Your task to perform on an android device: turn on sleep mode Image 0: 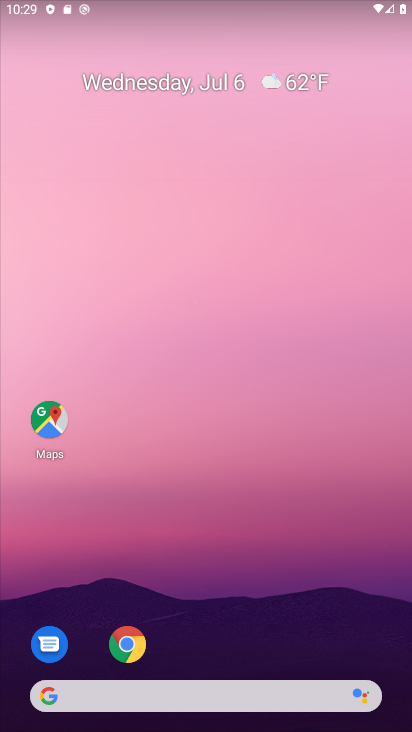
Step 0: press home button
Your task to perform on an android device: turn on sleep mode Image 1: 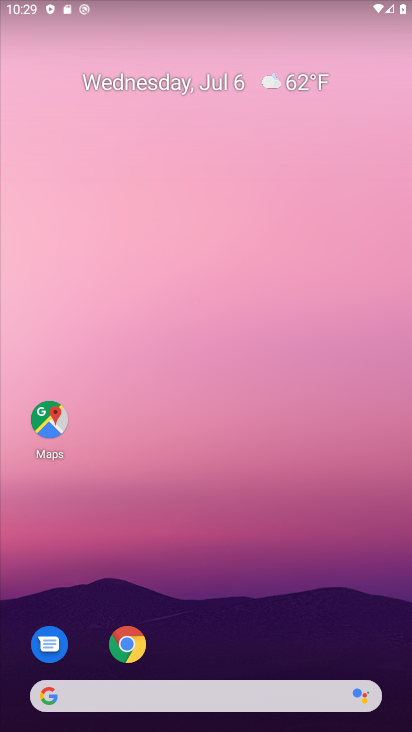
Step 1: press home button
Your task to perform on an android device: turn on sleep mode Image 2: 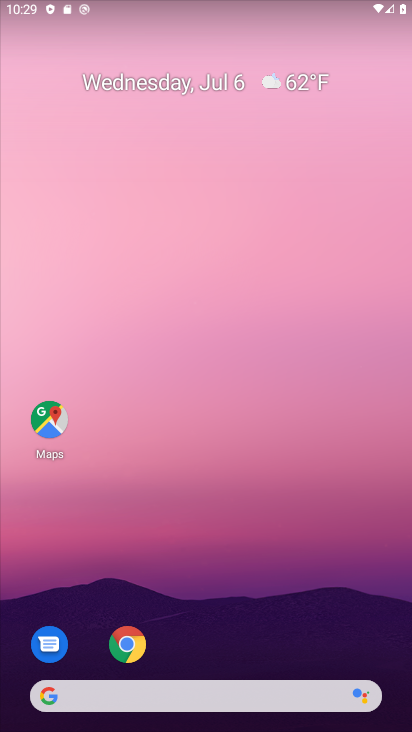
Step 2: drag from (213, 655) to (179, 157)
Your task to perform on an android device: turn on sleep mode Image 3: 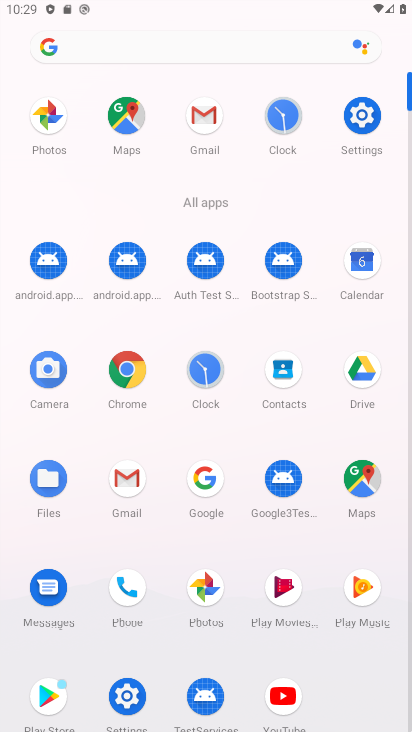
Step 3: click (364, 124)
Your task to perform on an android device: turn on sleep mode Image 4: 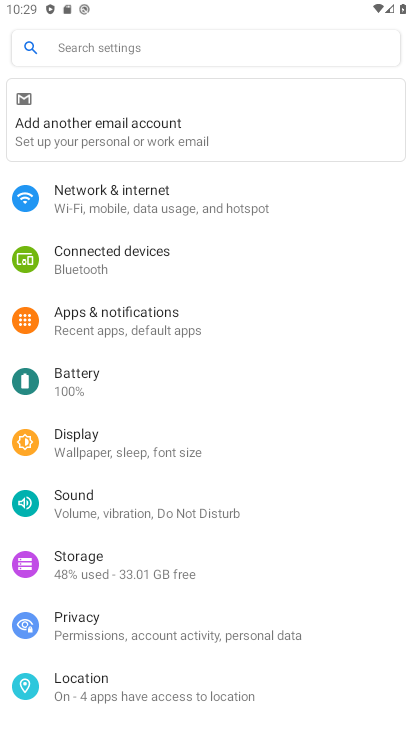
Step 4: click (87, 451)
Your task to perform on an android device: turn on sleep mode Image 5: 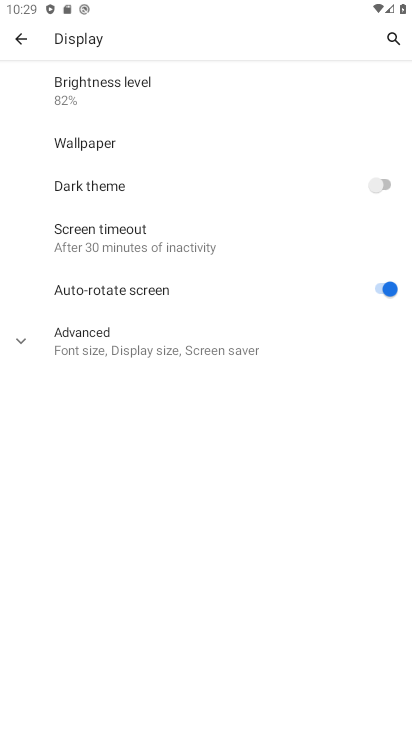
Step 5: task complete